Your task to perform on an android device: toggle wifi Image 0: 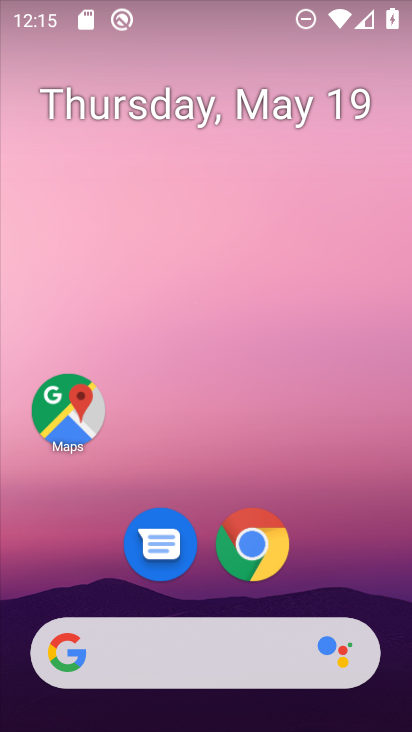
Step 0: drag from (353, 577) to (317, 179)
Your task to perform on an android device: toggle wifi Image 1: 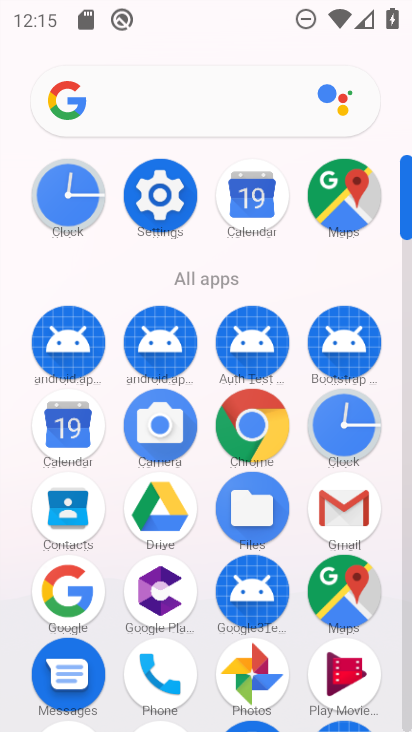
Step 1: click (164, 176)
Your task to perform on an android device: toggle wifi Image 2: 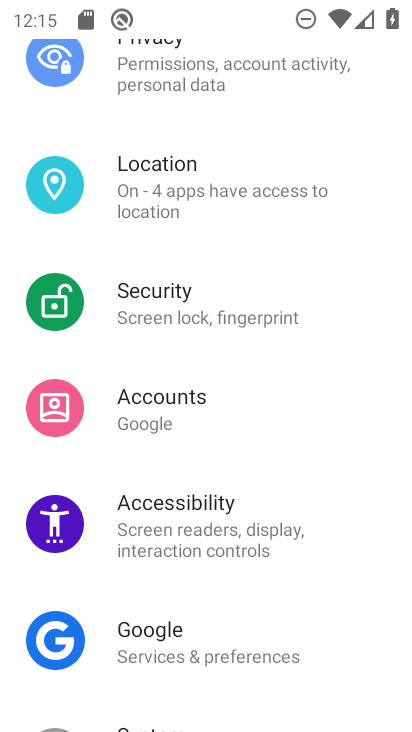
Step 2: drag from (164, 176) to (176, 672)
Your task to perform on an android device: toggle wifi Image 3: 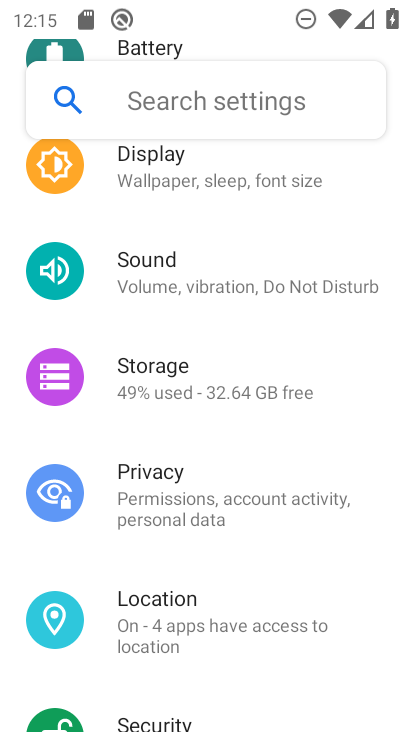
Step 3: drag from (170, 339) to (205, 712)
Your task to perform on an android device: toggle wifi Image 4: 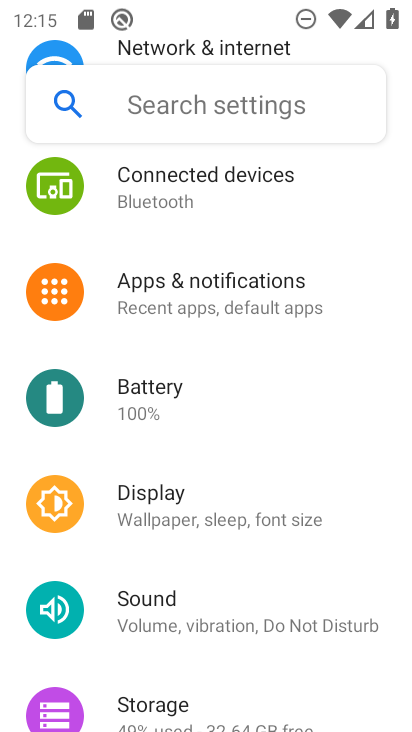
Step 4: drag from (170, 193) to (180, 534)
Your task to perform on an android device: toggle wifi Image 5: 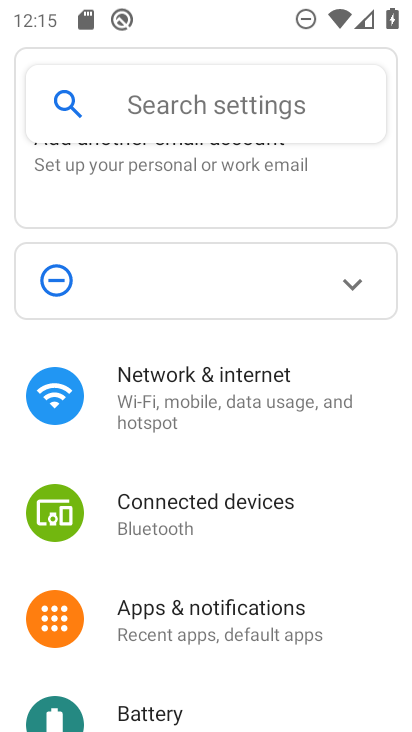
Step 5: click (158, 411)
Your task to perform on an android device: toggle wifi Image 6: 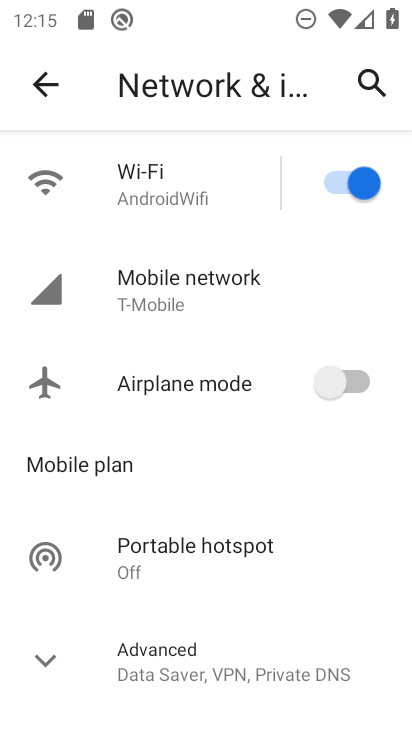
Step 6: click (298, 193)
Your task to perform on an android device: toggle wifi Image 7: 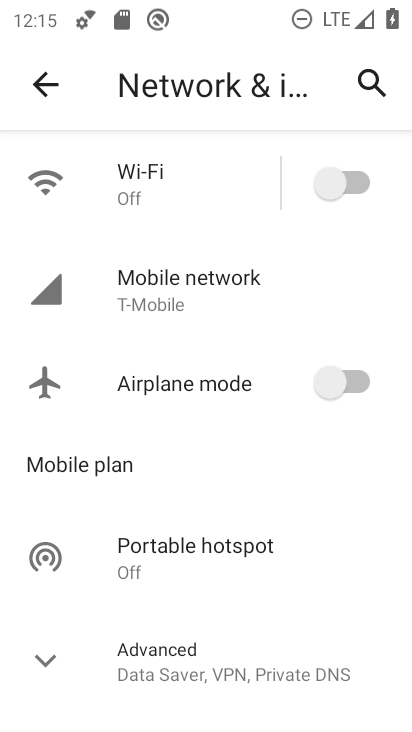
Step 7: task complete